Your task to perform on an android device: Turn on the flashlight Image 0: 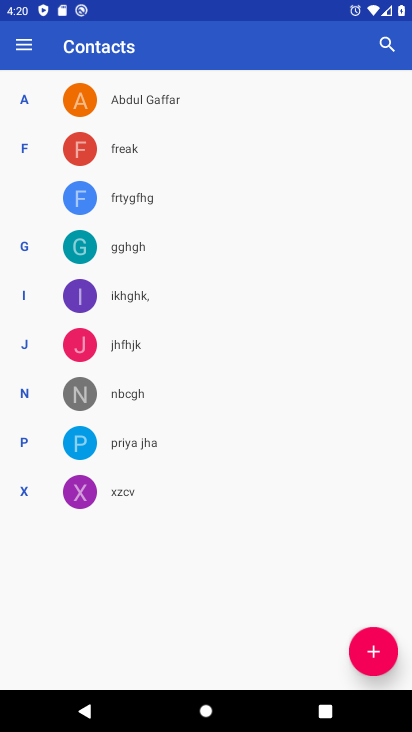
Step 0: press home button
Your task to perform on an android device: Turn on the flashlight Image 1: 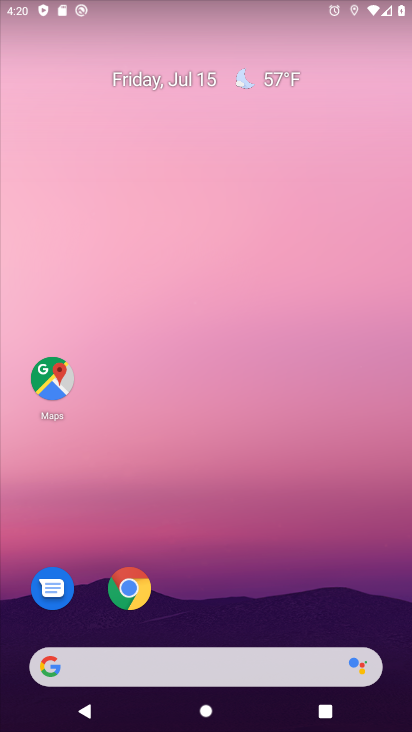
Step 1: drag from (198, 669) to (252, 222)
Your task to perform on an android device: Turn on the flashlight Image 2: 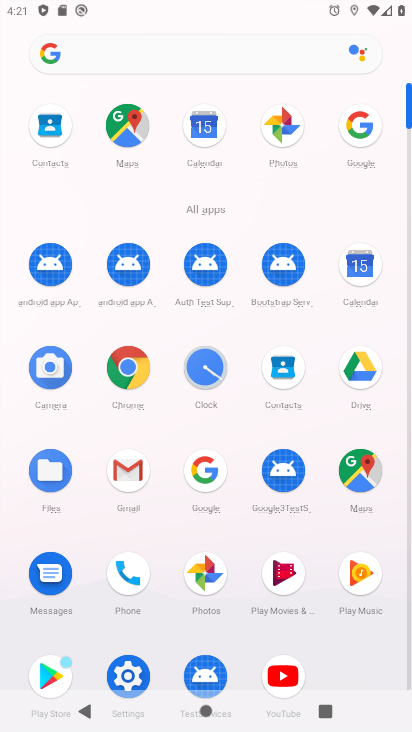
Step 2: click (124, 674)
Your task to perform on an android device: Turn on the flashlight Image 3: 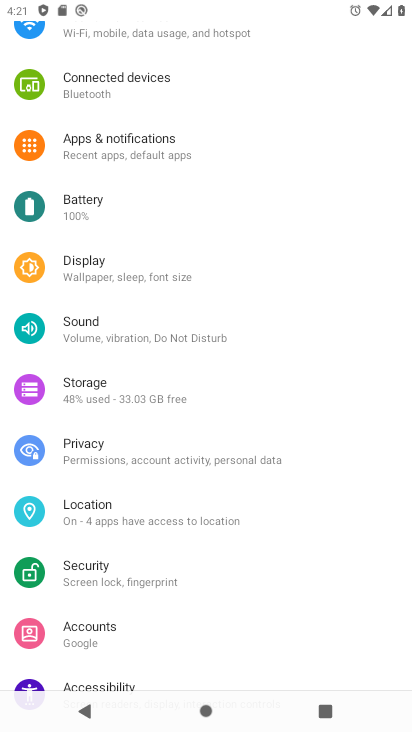
Step 3: click (111, 277)
Your task to perform on an android device: Turn on the flashlight Image 4: 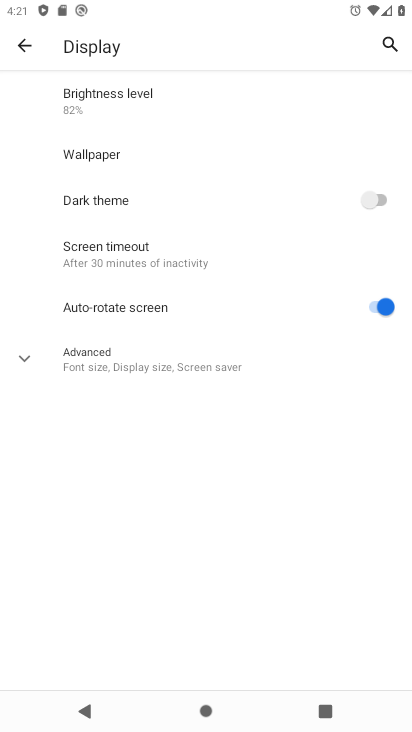
Step 4: click (117, 365)
Your task to perform on an android device: Turn on the flashlight Image 5: 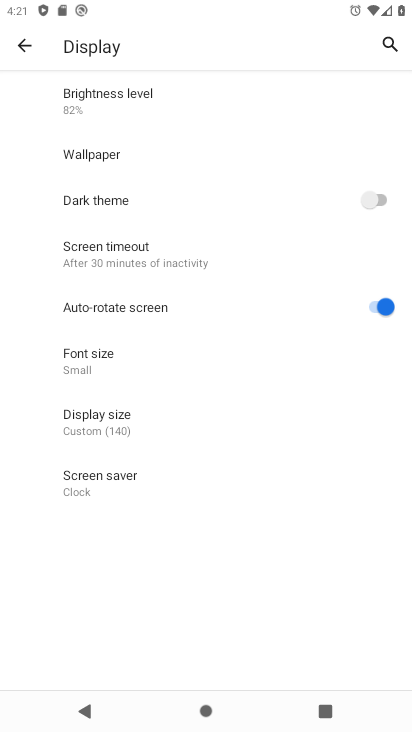
Step 5: click (118, 258)
Your task to perform on an android device: Turn on the flashlight Image 6: 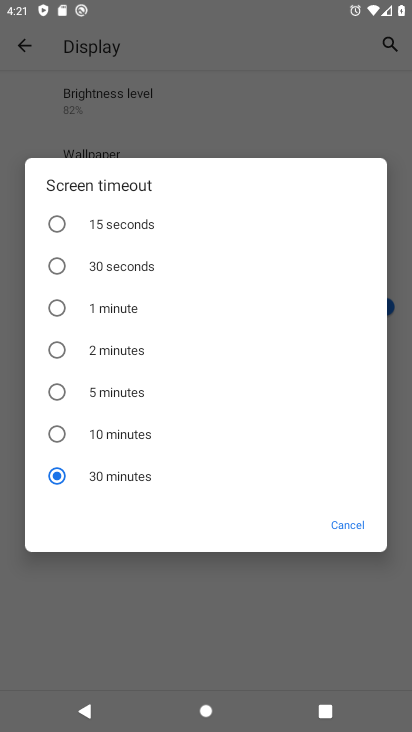
Step 6: click (348, 525)
Your task to perform on an android device: Turn on the flashlight Image 7: 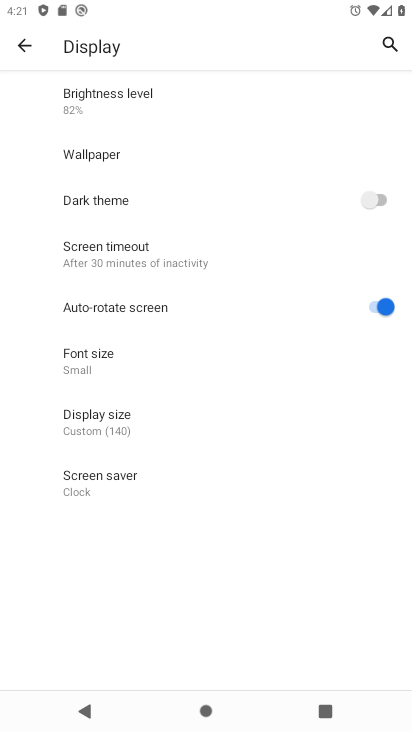
Step 7: click (107, 472)
Your task to perform on an android device: Turn on the flashlight Image 8: 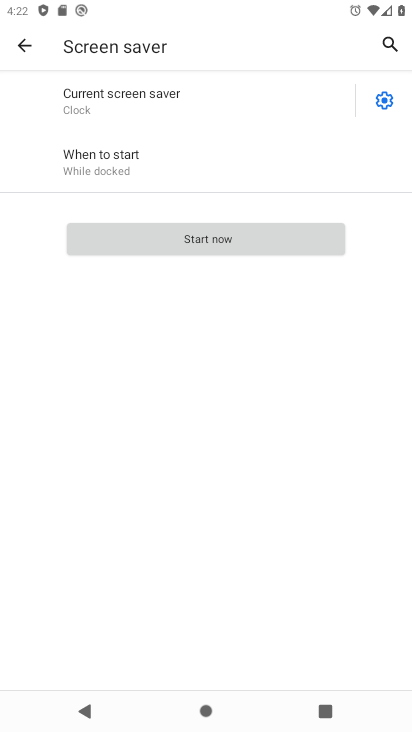
Step 8: click (389, 97)
Your task to perform on an android device: Turn on the flashlight Image 9: 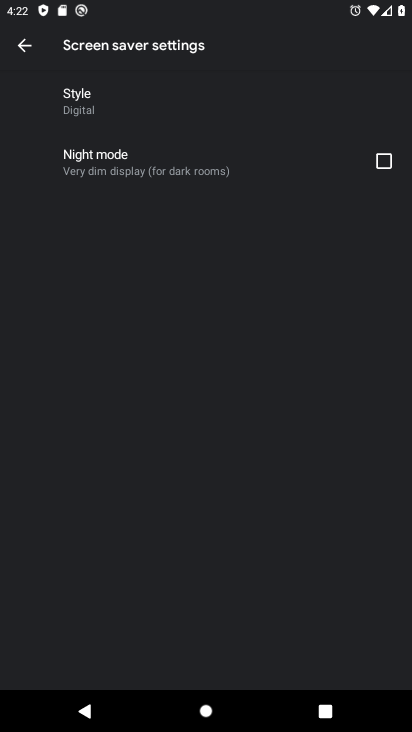
Step 9: task complete